Your task to perform on an android device: toggle airplane mode Image 0: 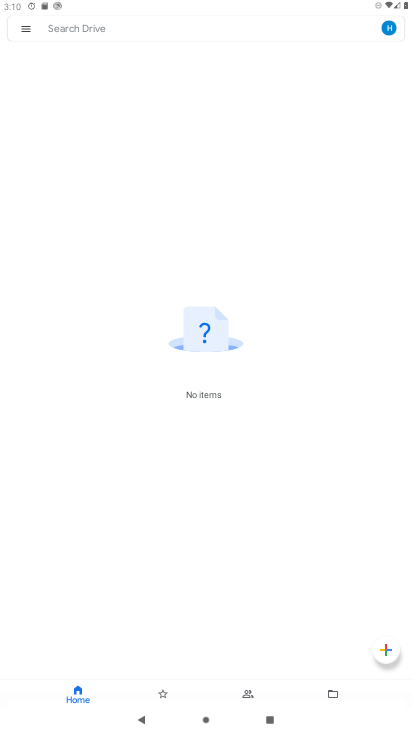
Step 0: press home button
Your task to perform on an android device: toggle airplane mode Image 1: 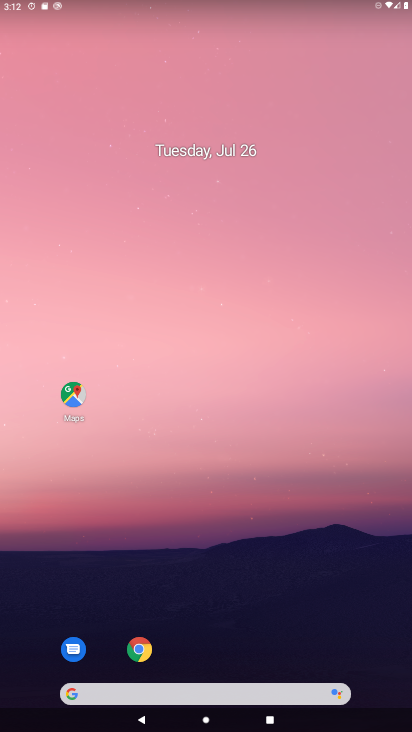
Step 1: drag from (324, 3) to (381, 676)
Your task to perform on an android device: toggle airplane mode Image 2: 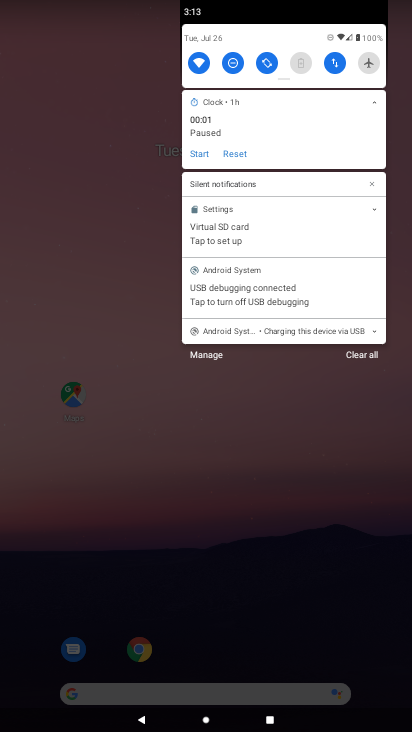
Step 2: click (369, 67)
Your task to perform on an android device: toggle airplane mode Image 3: 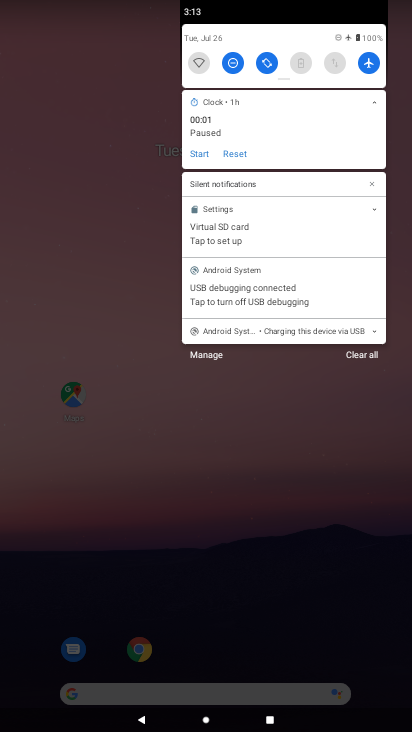
Step 3: task complete